Your task to perform on an android device: Go to network settings Image 0: 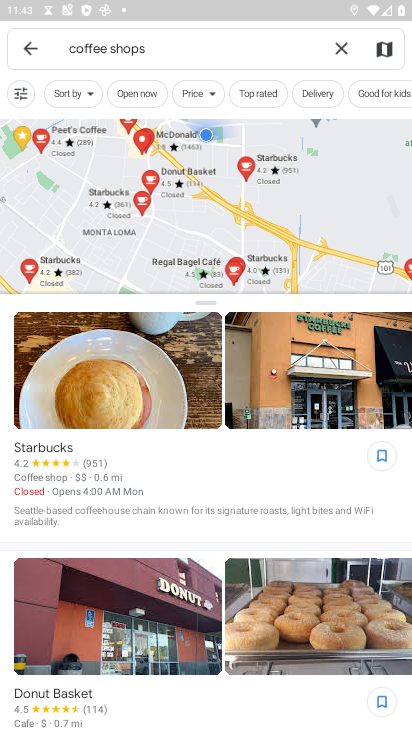
Step 0: press home button
Your task to perform on an android device: Go to network settings Image 1: 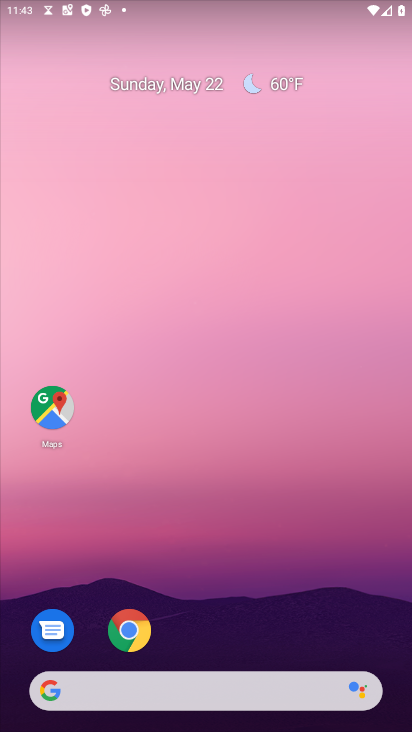
Step 1: drag from (279, 610) to (220, 223)
Your task to perform on an android device: Go to network settings Image 2: 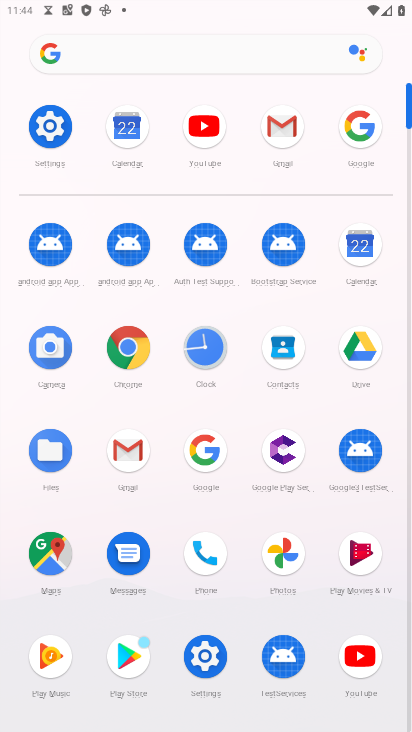
Step 2: click (205, 657)
Your task to perform on an android device: Go to network settings Image 3: 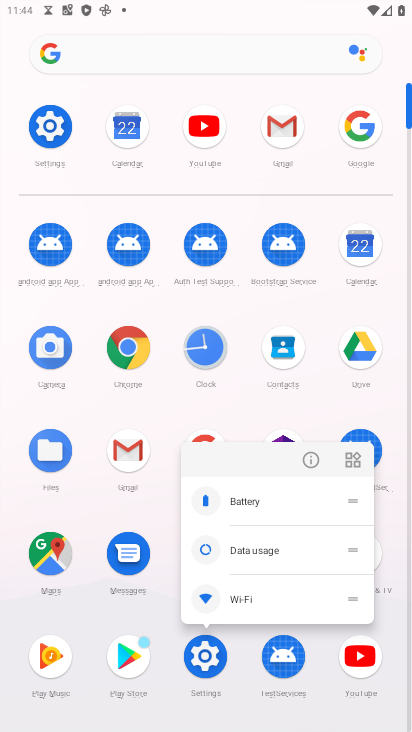
Step 3: click (205, 655)
Your task to perform on an android device: Go to network settings Image 4: 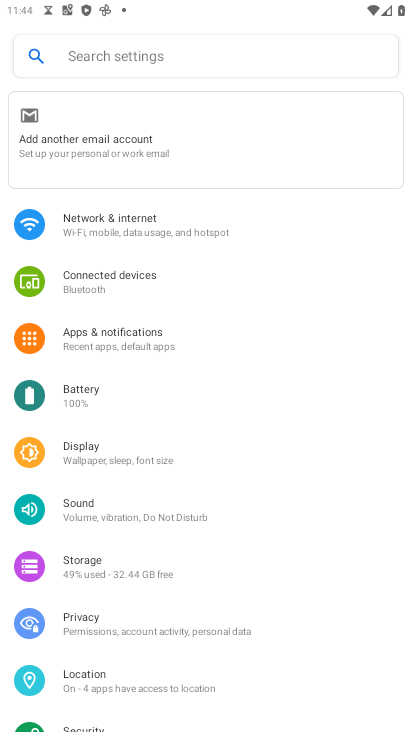
Step 4: click (140, 232)
Your task to perform on an android device: Go to network settings Image 5: 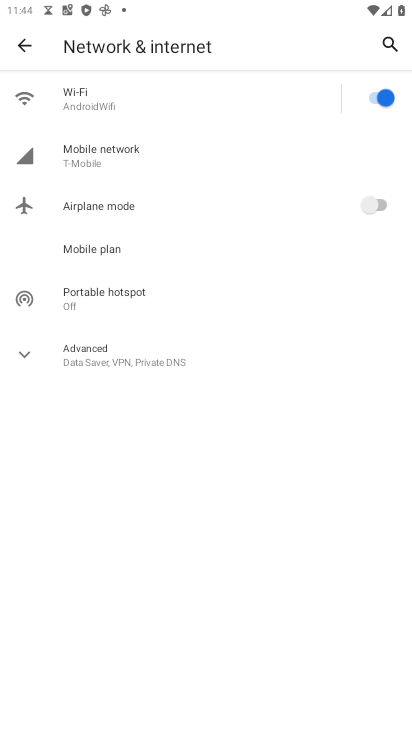
Step 5: click (111, 155)
Your task to perform on an android device: Go to network settings Image 6: 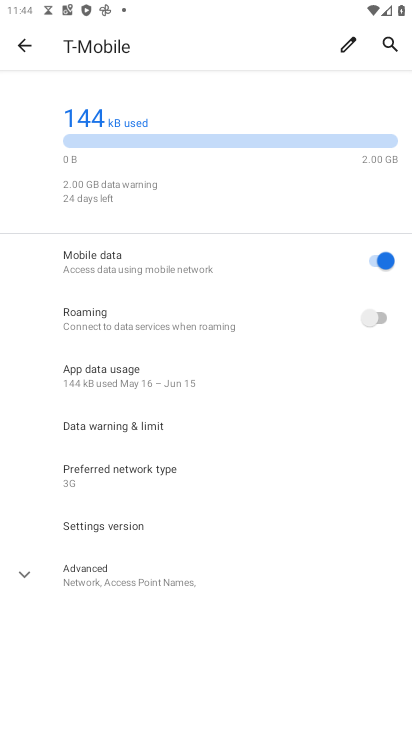
Step 6: task complete